Your task to perform on an android device: turn vacation reply on in the gmail app Image 0: 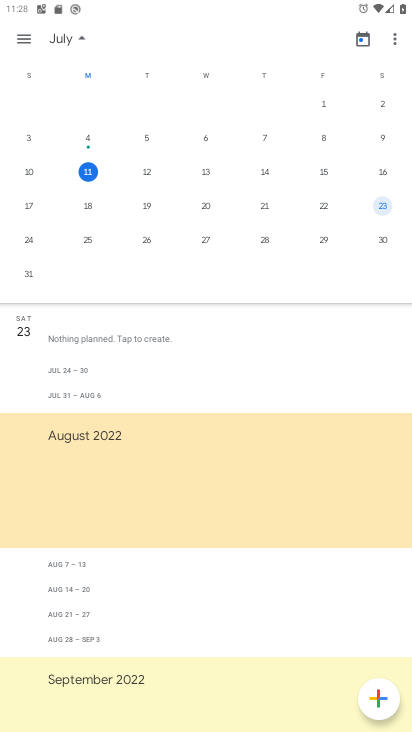
Step 0: press home button
Your task to perform on an android device: turn vacation reply on in the gmail app Image 1: 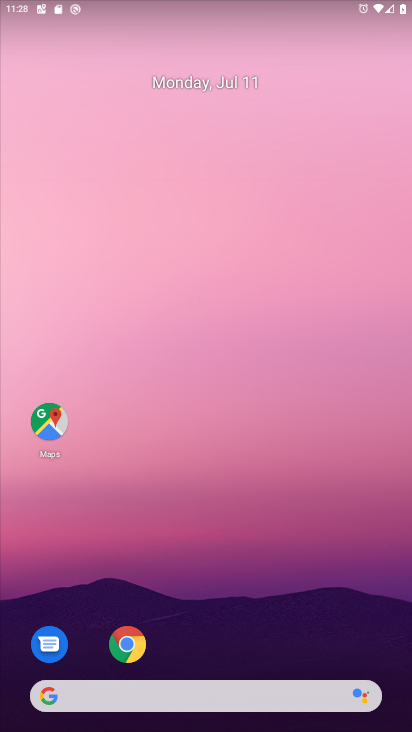
Step 1: drag from (280, 632) to (301, 297)
Your task to perform on an android device: turn vacation reply on in the gmail app Image 2: 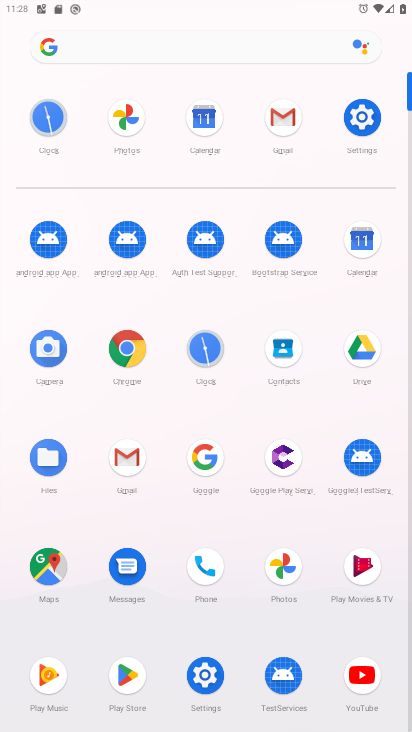
Step 2: click (126, 469)
Your task to perform on an android device: turn vacation reply on in the gmail app Image 3: 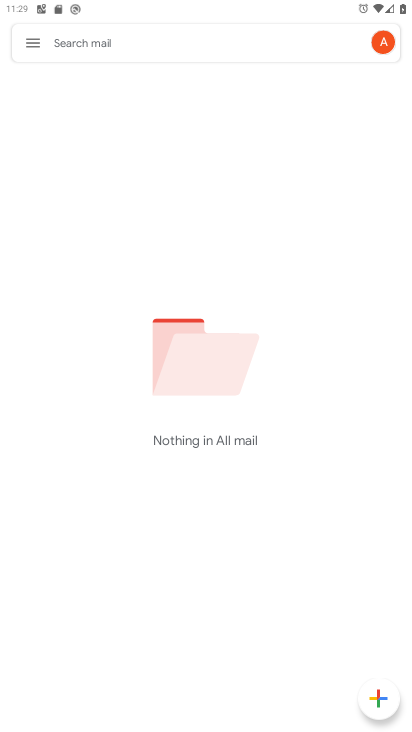
Step 3: click (30, 44)
Your task to perform on an android device: turn vacation reply on in the gmail app Image 4: 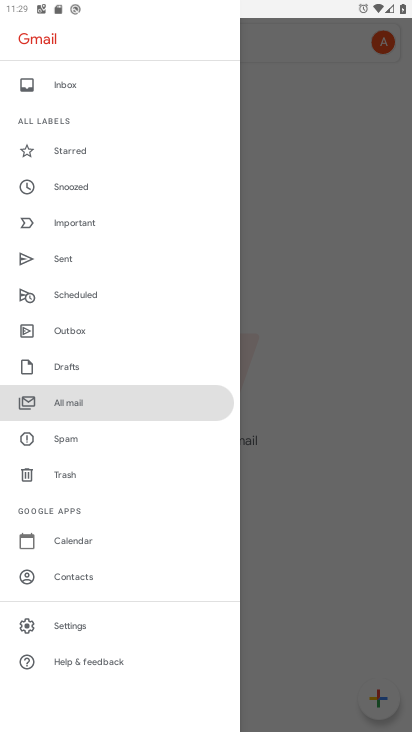
Step 4: click (66, 627)
Your task to perform on an android device: turn vacation reply on in the gmail app Image 5: 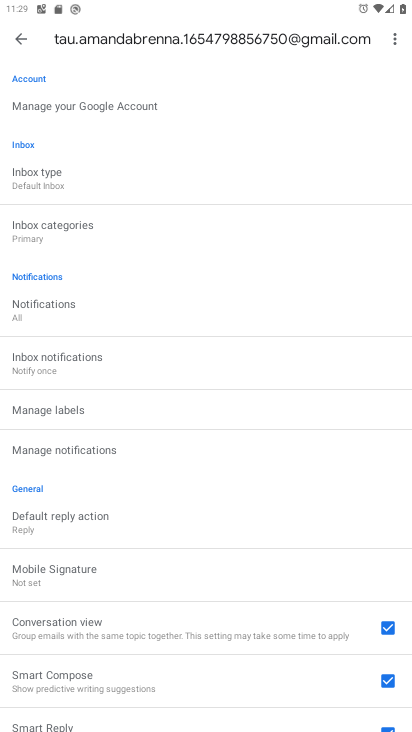
Step 5: drag from (106, 679) to (171, 350)
Your task to perform on an android device: turn vacation reply on in the gmail app Image 6: 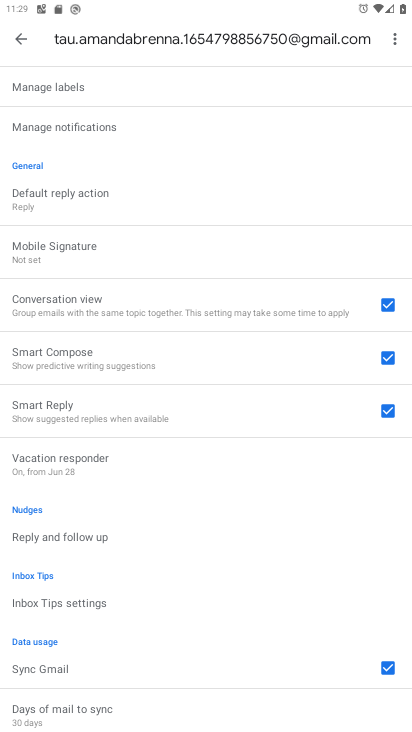
Step 6: click (111, 461)
Your task to perform on an android device: turn vacation reply on in the gmail app Image 7: 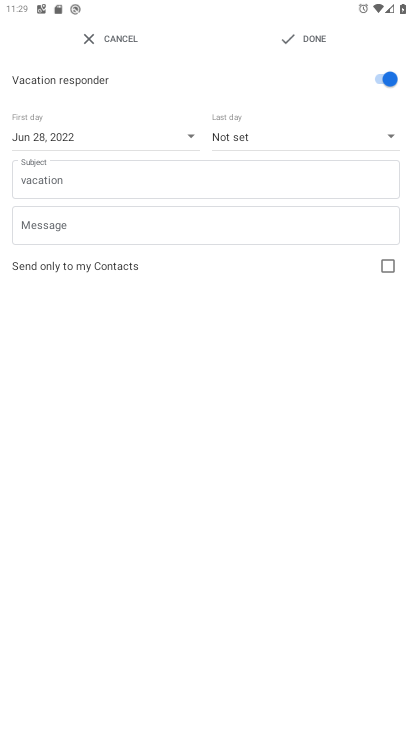
Step 7: click (297, 41)
Your task to perform on an android device: turn vacation reply on in the gmail app Image 8: 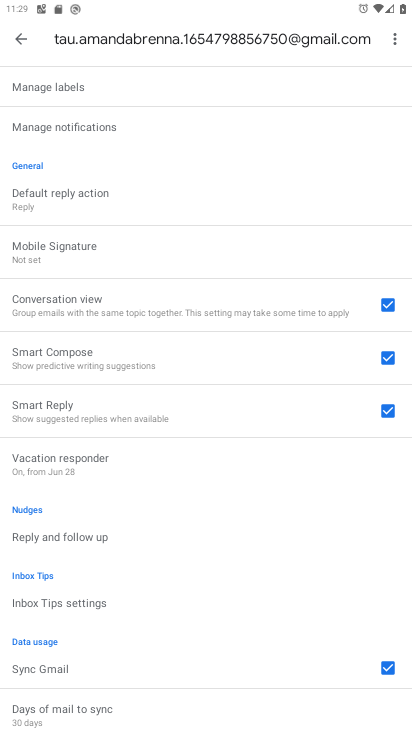
Step 8: task complete